Your task to perform on an android device: open wifi settings Image 0: 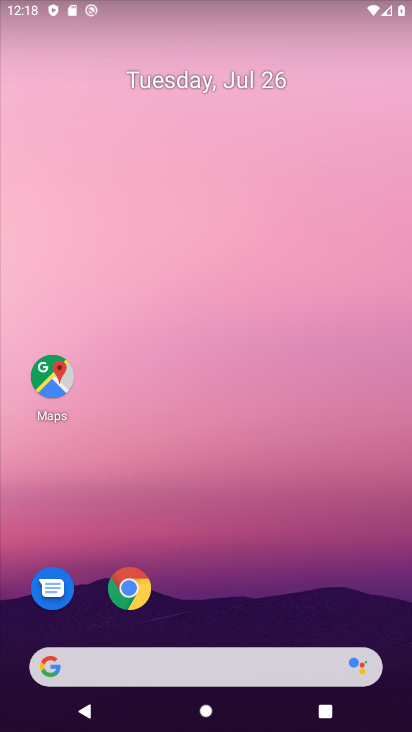
Step 0: drag from (278, 627) to (174, 26)
Your task to perform on an android device: open wifi settings Image 1: 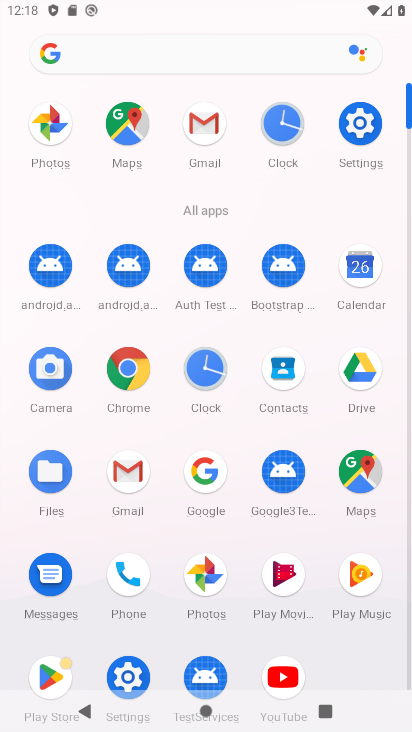
Step 1: click (373, 134)
Your task to perform on an android device: open wifi settings Image 2: 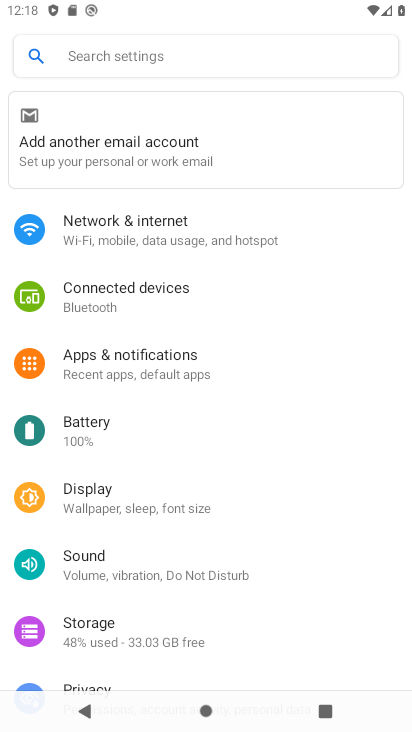
Step 2: click (182, 229)
Your task to perform on an android device: open wifi settings Image 3: 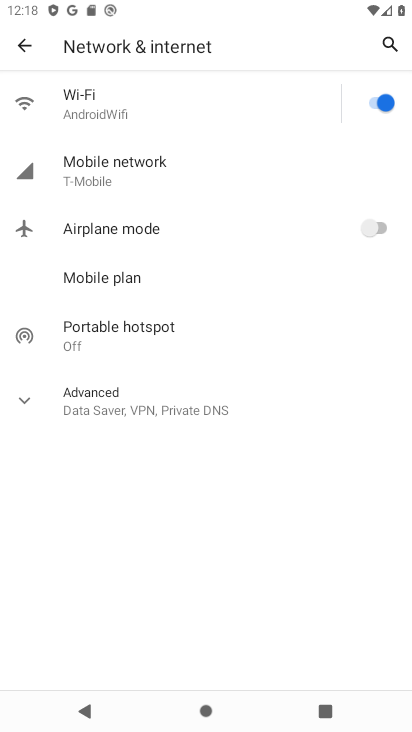
Step 3: click (136, 106)
Your task to perform on an android device: open wifi settings Image 4: 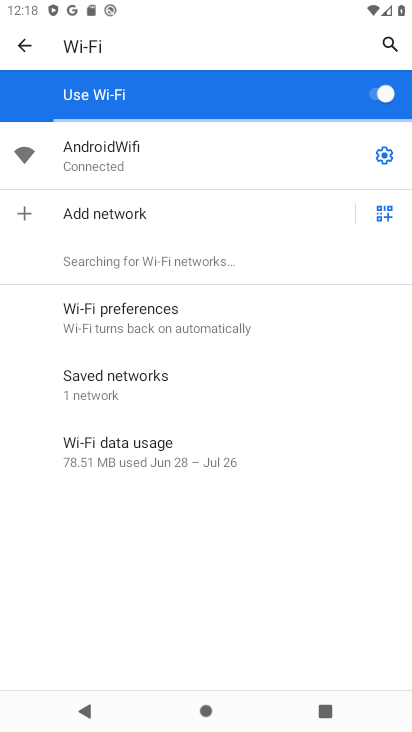
Step 4: task complete